Your task to perform on an android device: Toggle the flashlight Image 0: 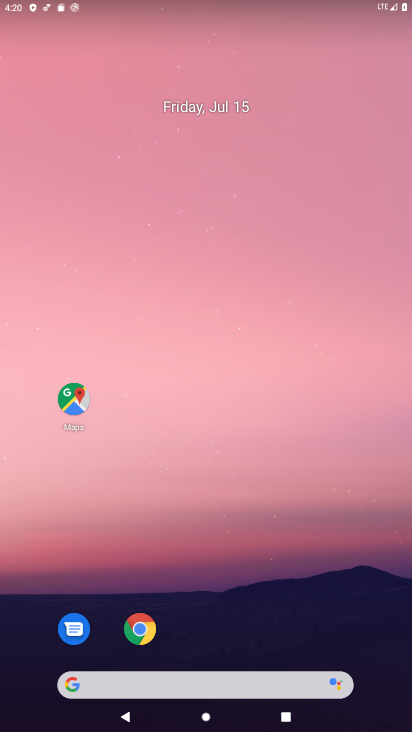
Step 0: drag from (164, 489) to (206, 4)
Your task to perform on an android device: Toggle the flashlight Image 1: 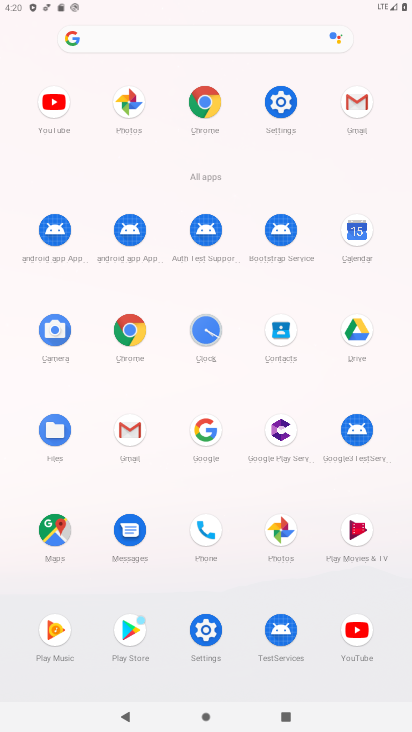
Step 1: click (277, 109)
Your task to perform on an android device: Toggle the flashlight Image 2: 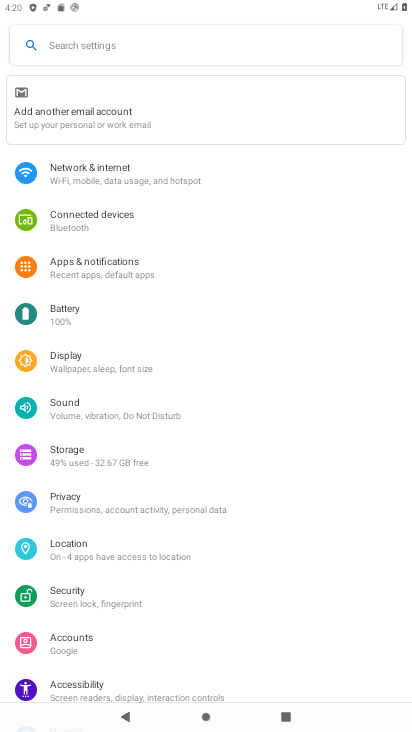
Step 2: task complete